Your task to perform on an android device: toggle wifi Image 0: 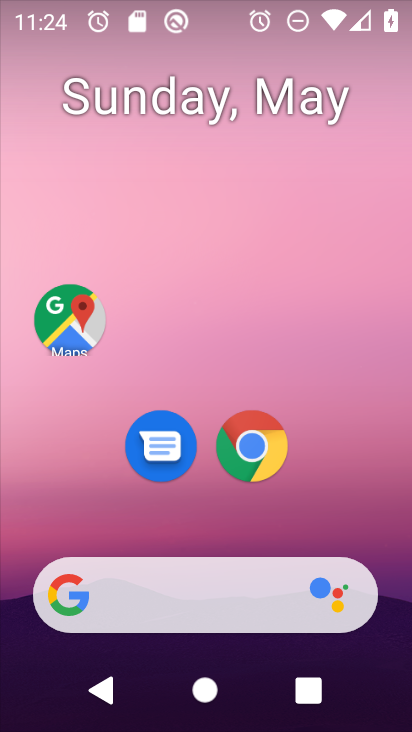
Step 0: drag from (315, 372) to (263, 30)
Your task to perform on an android device: toggle wifi Image 1: 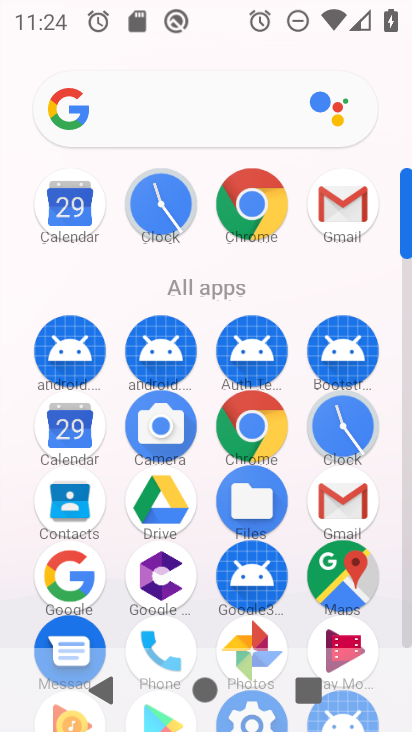
Step 1: drag from (23, 511) to (12, 202)
Your task to perform on an android device: toggle wifi Image 2: 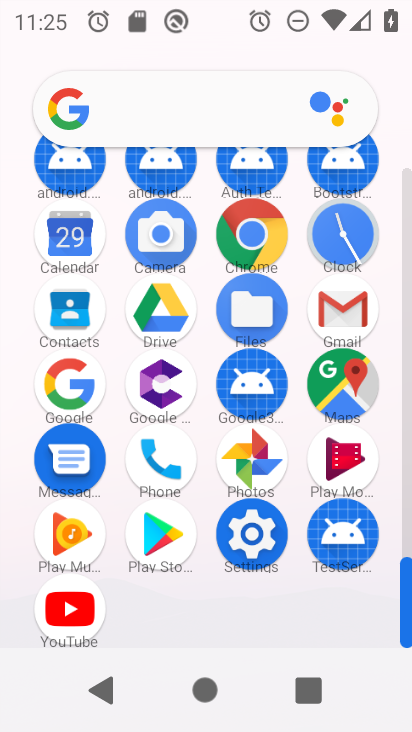
Step 2: click (247, 532)
Your task to perform on an android device: toggle wifi Image 3: 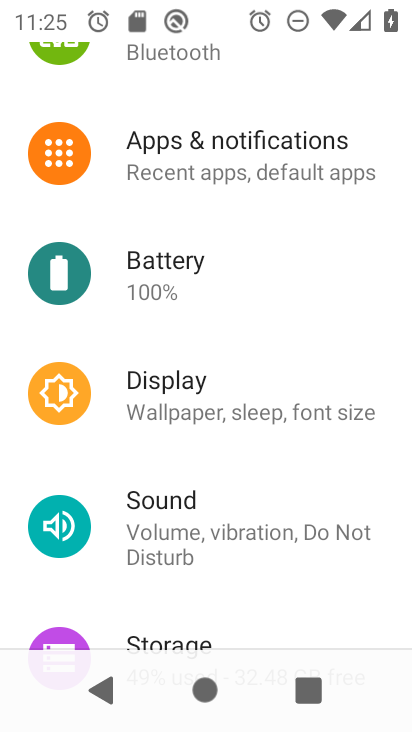
Step 3: drag from (229, 125) to (279, 571)
Your task to perform on an android device: toggle wifi Image 4: 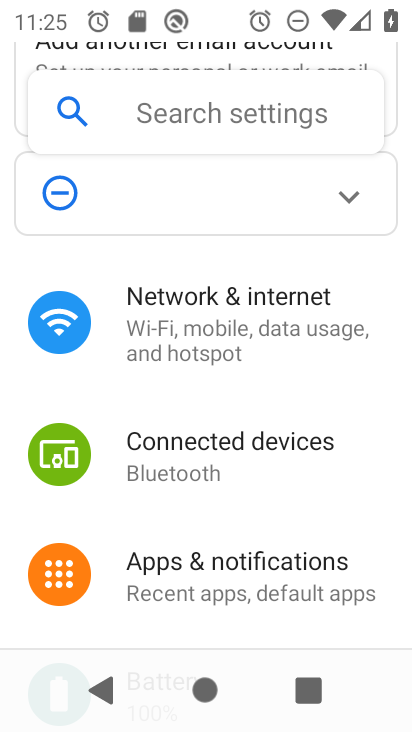
Step 4: click (232, 320)
Your task to perform on an android device: toggle wifi Image 5: 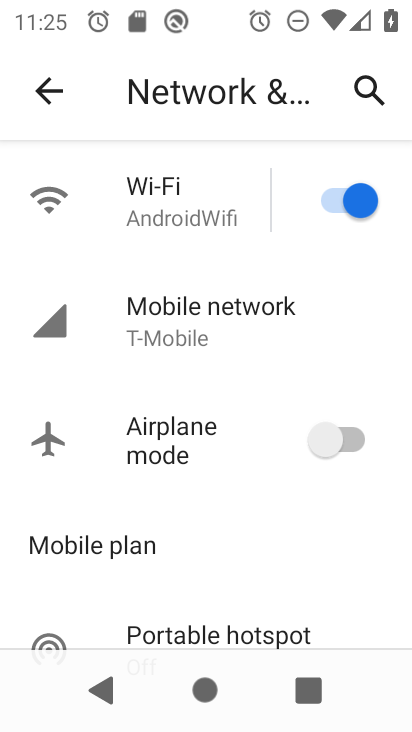
Step 5: click (359, 189)
Your task to perform on an android device: toggle wifi Image 6: 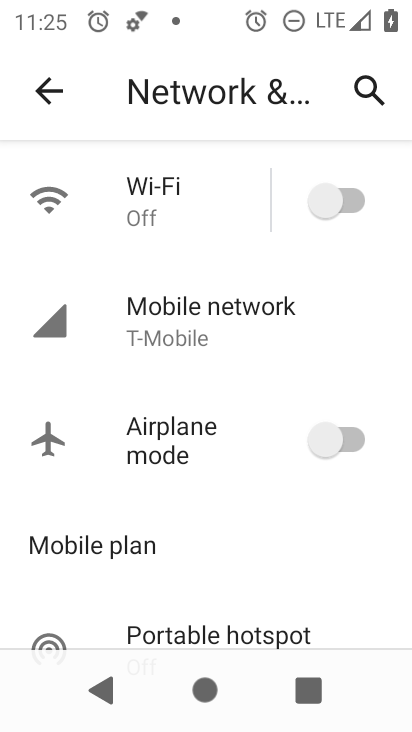
Step 6: drag from (160, 548) to (198, 147)
Your task to perform on an android device: toggle wifi Image 7: 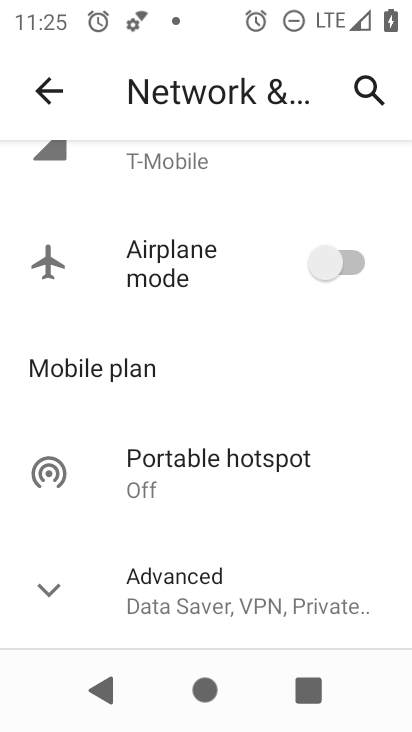
Step 7: click (50, 589)
Your task to perform on an android device: toggle wifi Image 8: 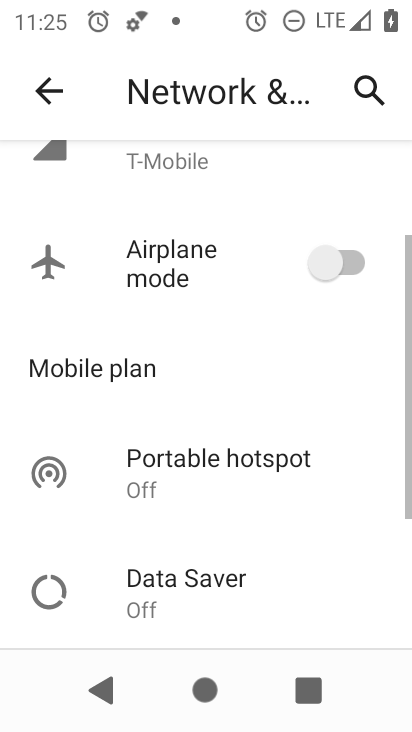
Step 8: task complete